Your task to perform on an android device: delete the emails in spam in the gmail app Image 0: 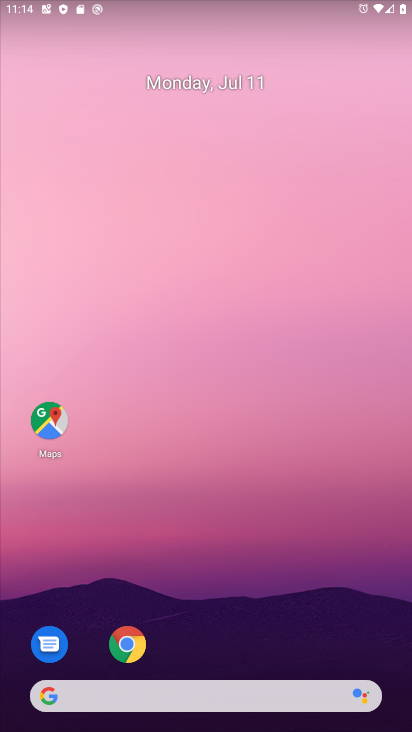
Step 0: press home button
Your task to perform on an android device: delete the emails in spam in the gmail app Image 1: 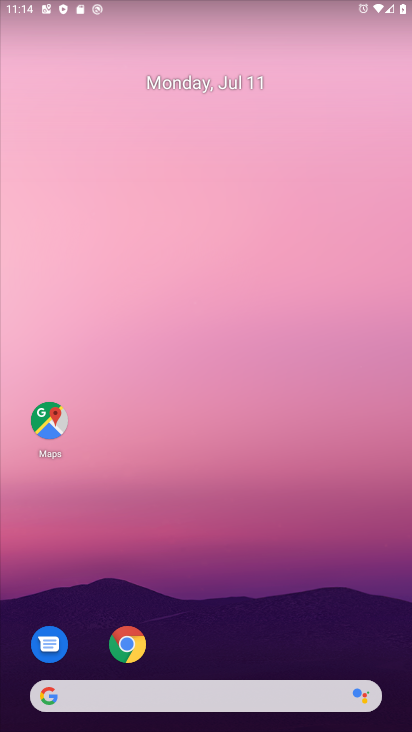
Step 1: drag from (221, 664) to (258, 31)
Your task to perform on an android device: delete the emails in spam in the gmail app Image 2: 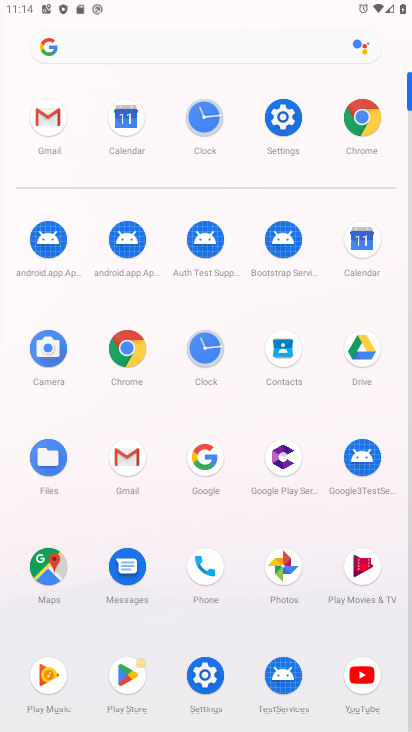
Step 2: click (121, 449)
Your task to perform on an android device: delete the emails in spam in the gmail app Image 3: 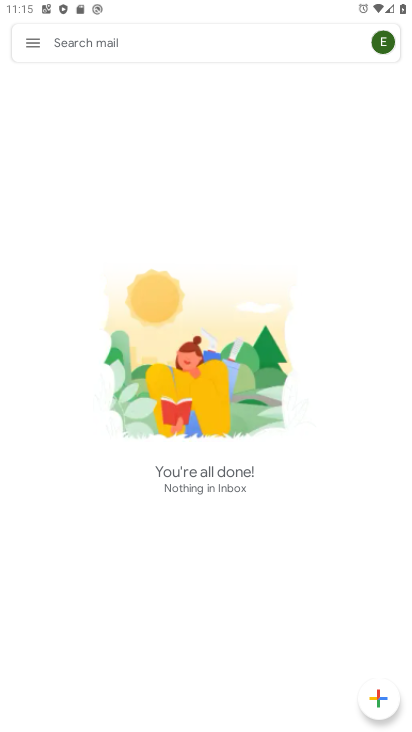
Step 3: click (31, 42)
Your task to perform on an android device: delete the emails in spam in the gmail app Image 4: 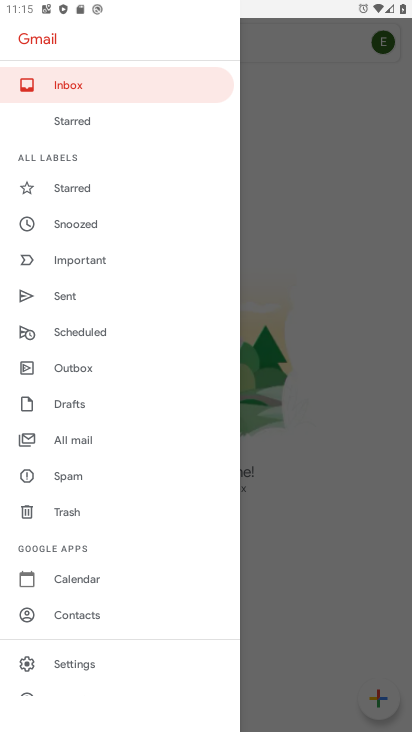
Step 4: click (83, 477)
Your task to perform on an android device: delete the emails in spam in the gmail app Image 5: 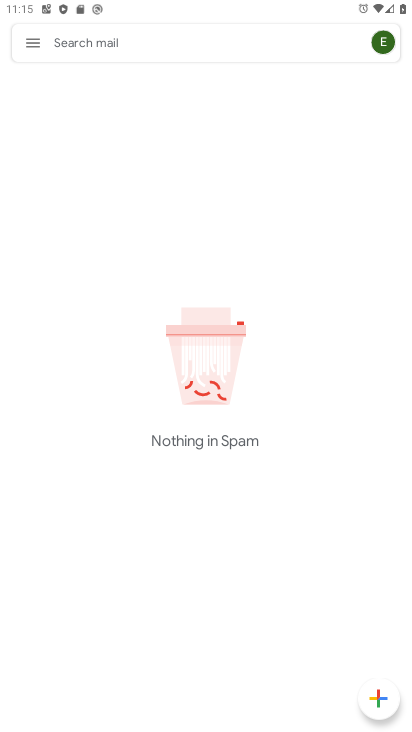
Step 5: task complete